Your task to perform on an android device: Open CNN.com Image 0: 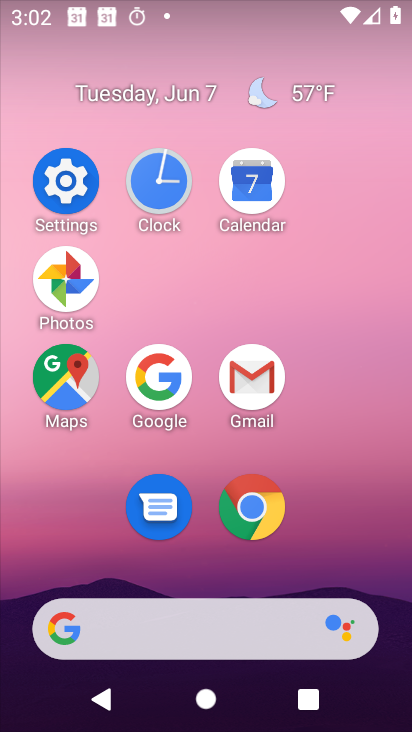
Step 0: click (259, 505)
Your task to perform on an android device: Open CNN.com Image 1: 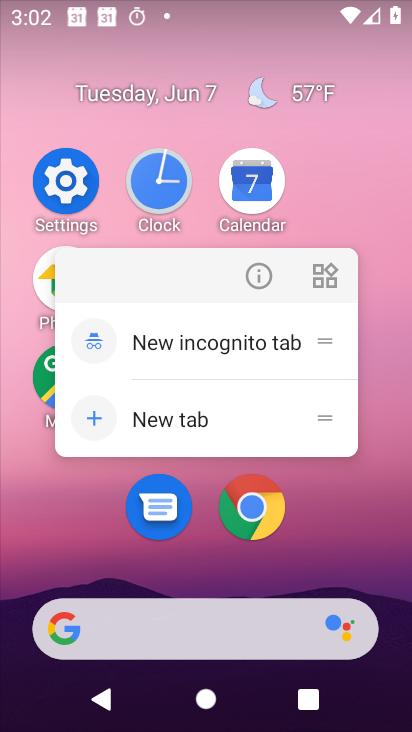
Step 1: click (259, 505)
Your task to perform on an android device: Open CNN.com Image 2: 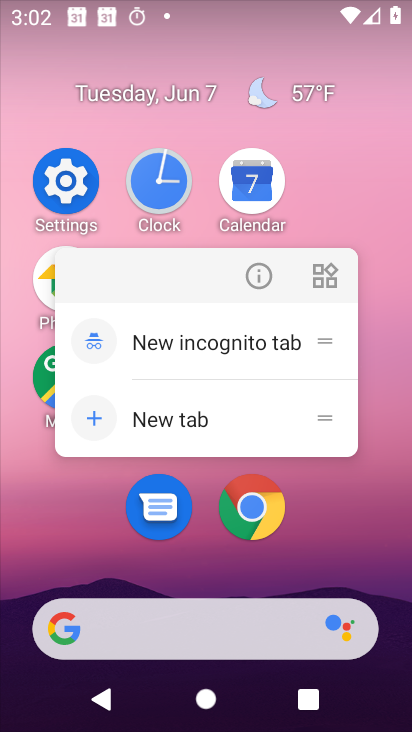
Step 2: click (261, 505)
Your task to perform on an android device: Open CNN.com Image 3: 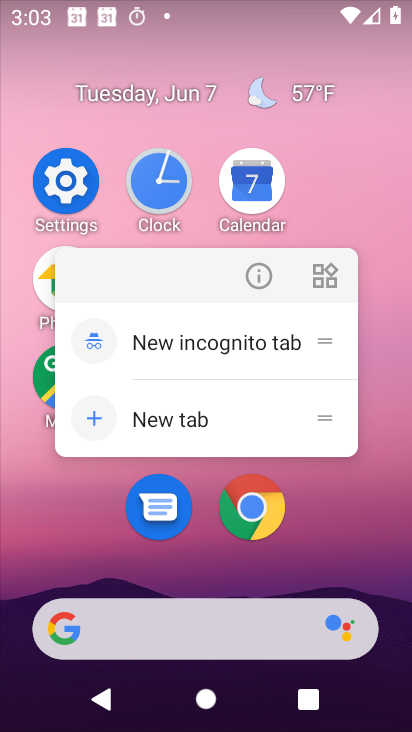
Step 3: click (262, 505)
Your task to perform on an android device: Open CNN.com Image 4: 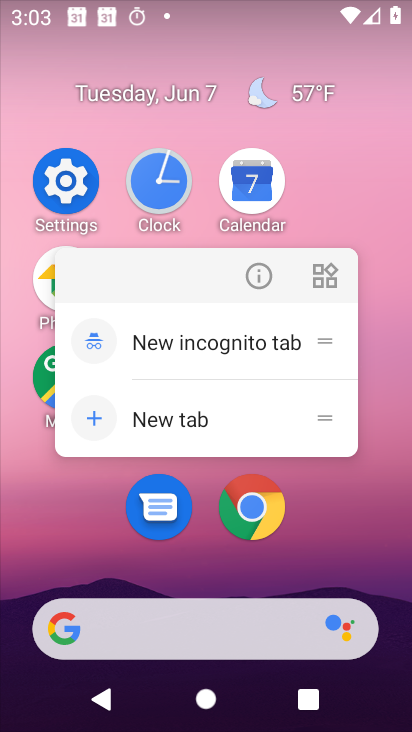
Step 4: click (262, 505)
Your task to perform on an android device: Open CNN.com Image 5: 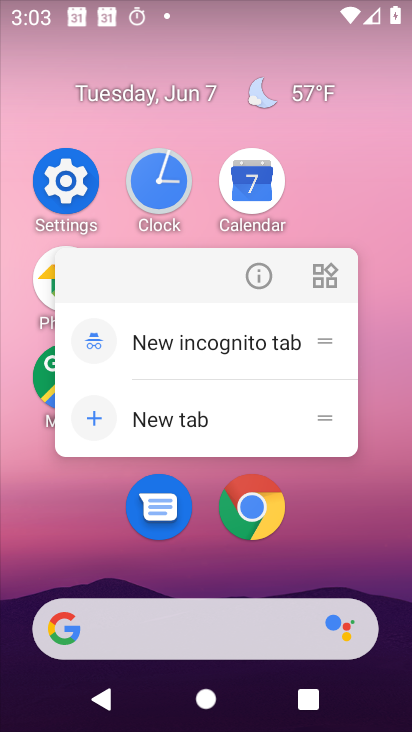
Step 5: click (262, 505)
Your task to perform on an android device: Open CNN.com Image 6: 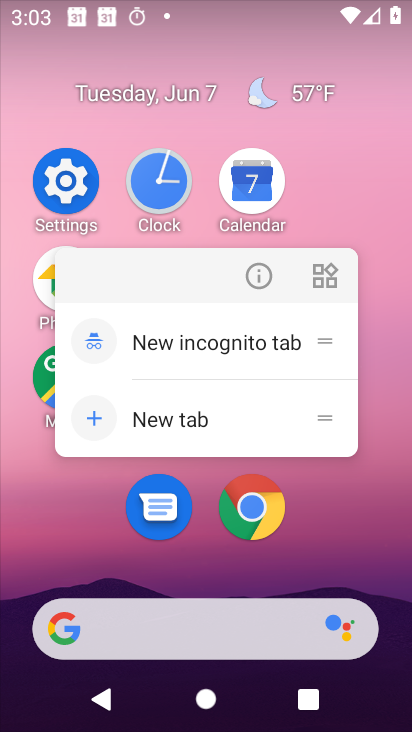
Step 6: click (263, 500)
Your task to perform on an android device: Open CNN.com Image 7: 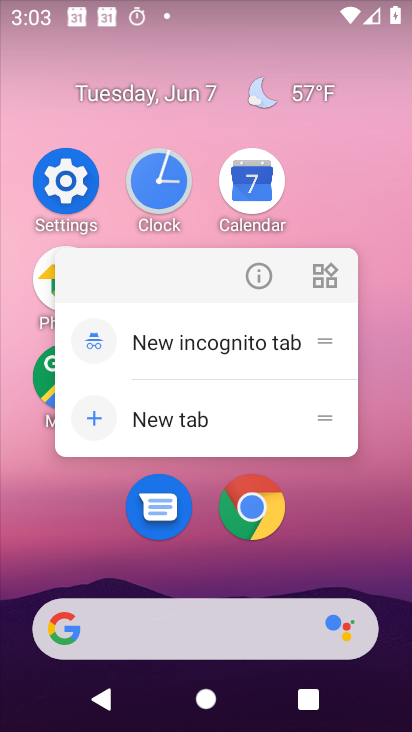
Step 7: click (264, 507)
Your task to perform on an android device: Open CNN.com Image 8: 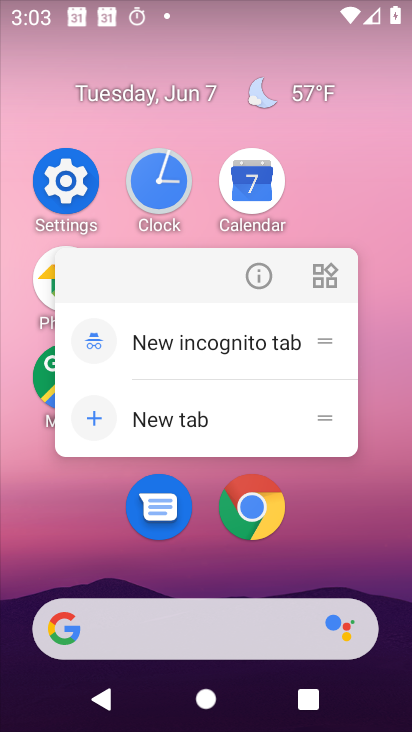
Step 8: click (264, 507)
Your task to perform on an android device: Open CNN.com Image 9: 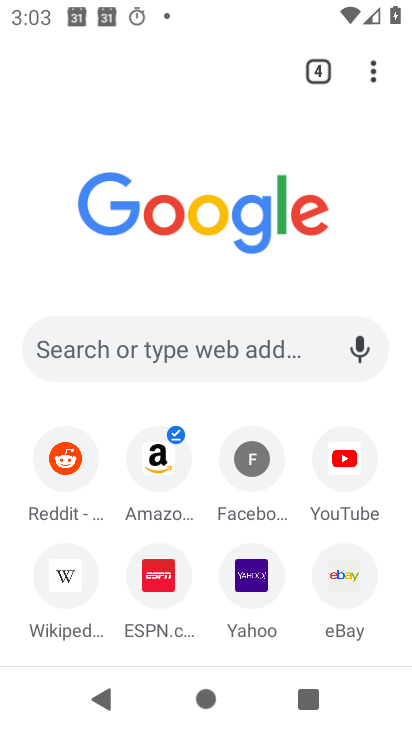
Step 9: click (152, 340)
Your task to perform on an android device: Open CNN.com Image 10: 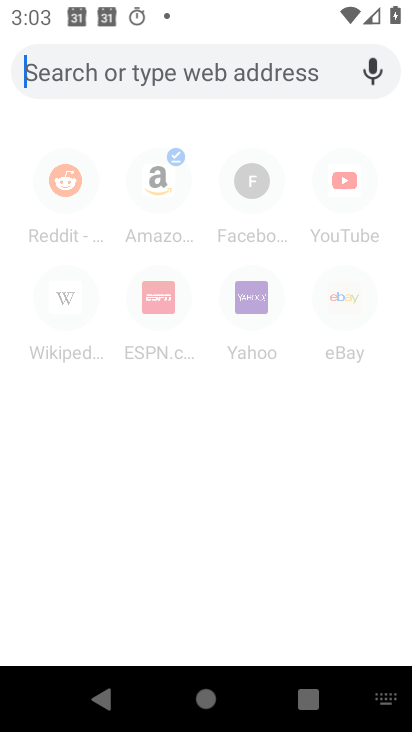
Step 10: type "cnn"
Your task to perform on an android device: Open CNN.com Image 11: 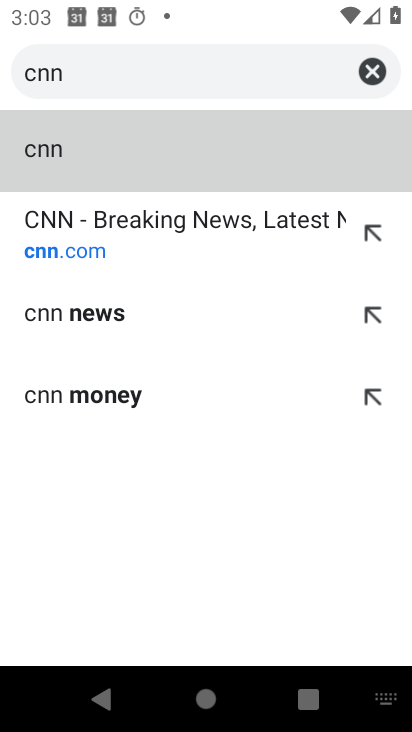
Step 11: click (115, 231)
Your task to perform on an android device: Open CNN.com Image 12: 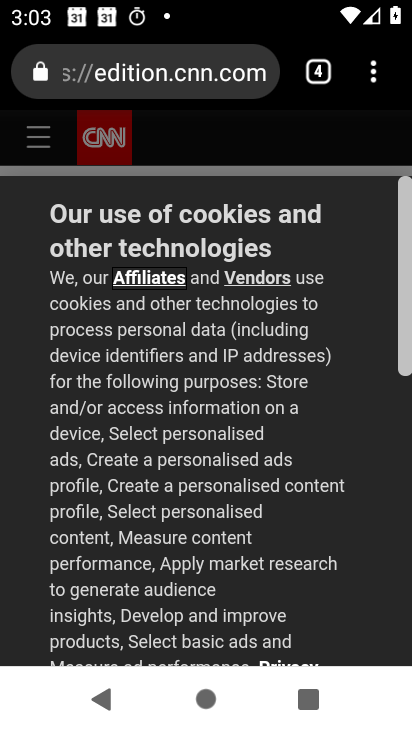
Step 12: task complete